Your task to perform on an android device: toggle location history Image 0: 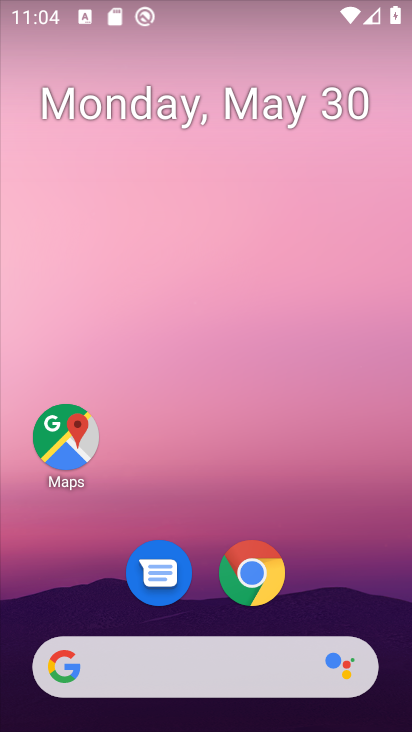
Step 0: drag from (227, 609) to (313, 63)
Your task to perform on an android device: toggle location history Image 1: 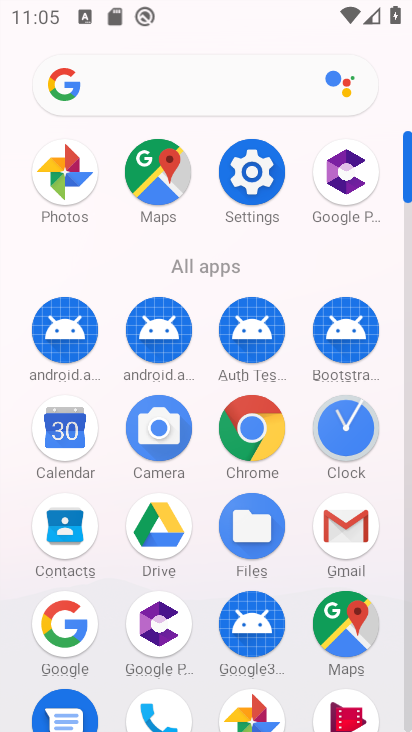
Step 1: click (271, 155)
Your task to perform on an android device: toggle location history Image 2: 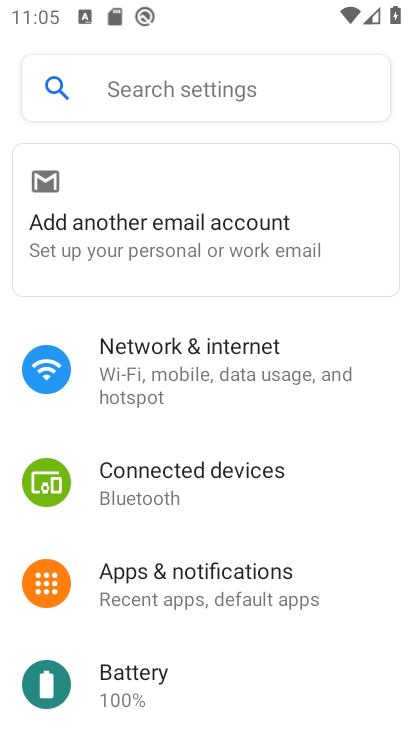
Step 2: drag from (231, 563) to (253, 133)
Your task to perform on an android device: toggle location history Image 3: 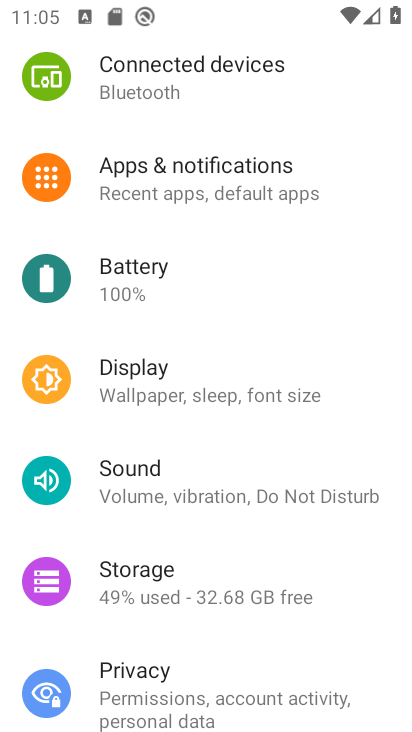
Step 3: drag from (146, 618) to (120, 208)
Your task to perform on an android device: toggle location history Image 4: 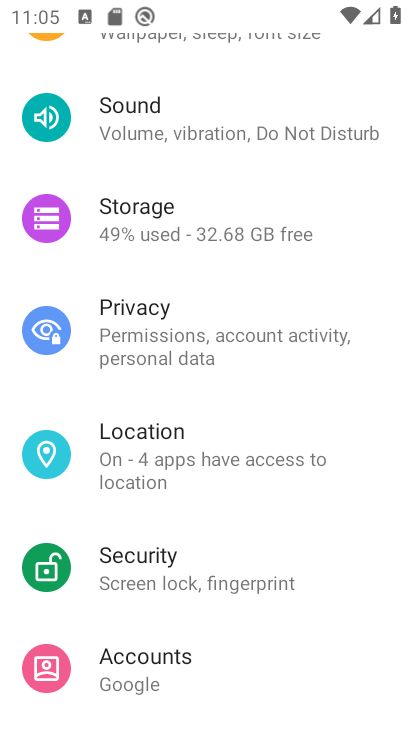
Step 4: click (222, 461)
Your task to perform on an android device: toggle location history Image 5: 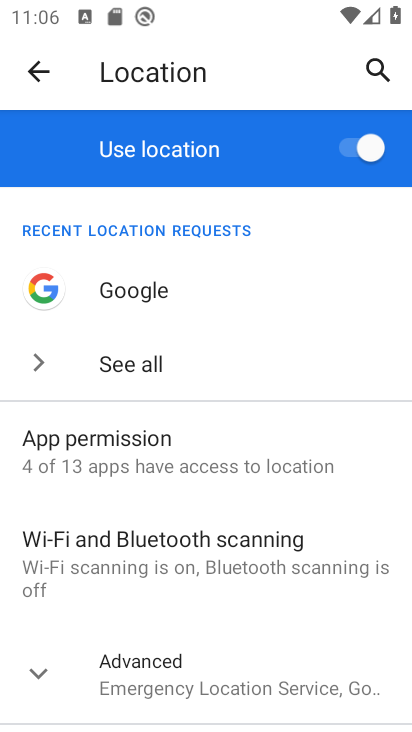
Step 5: click (184, 684)
Your task to perform on an android device: toggle location history Image 6: 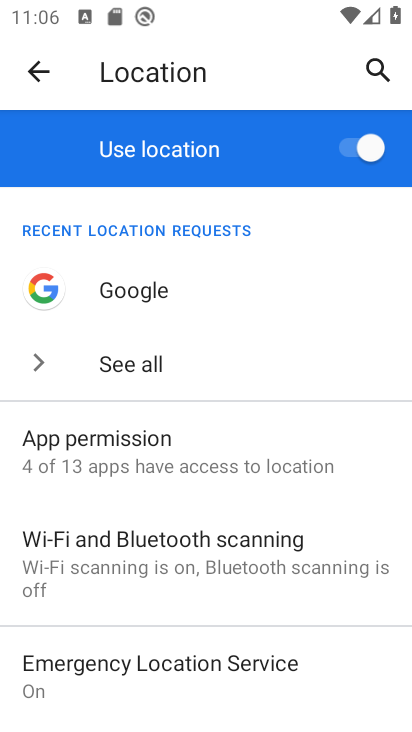
Step 6: drag from (267, 604) to (339, 147)
Your task to perform on an android device: toggle location history Image 7: 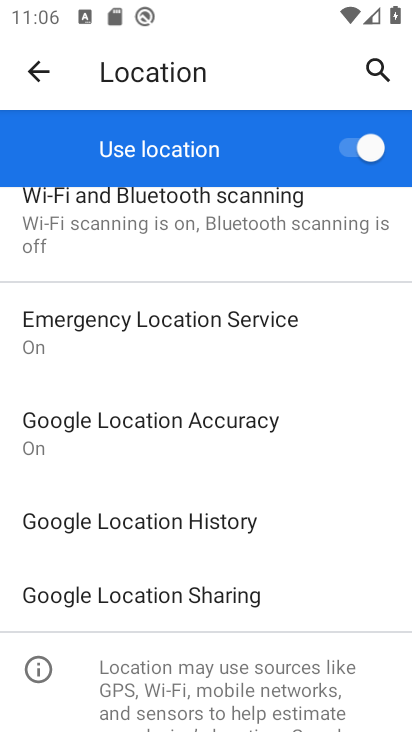
Step 7: click (230, 523)
Your task to perform on an android device: toggle location history Image 8: 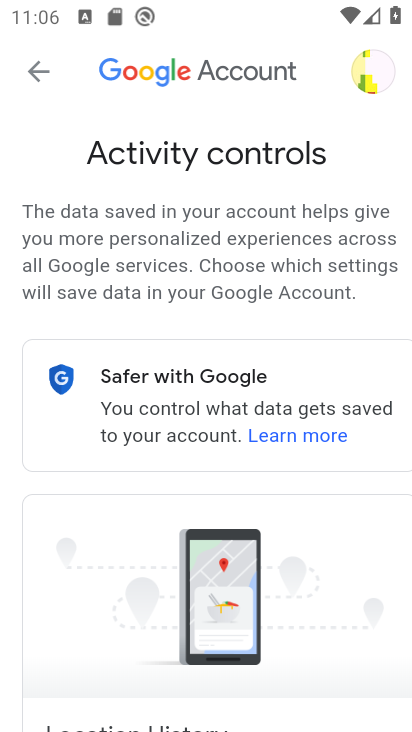
Step 8: drag from (249, 616) to (329, 112)
Your task to perform on an android device: toggle location history Image 9: 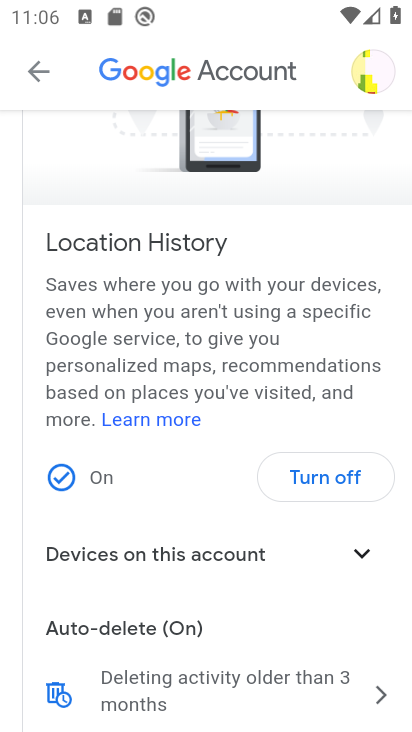
Step 9: click (333, 478)
Your task to perform on an android device: toggle location history Image 10: 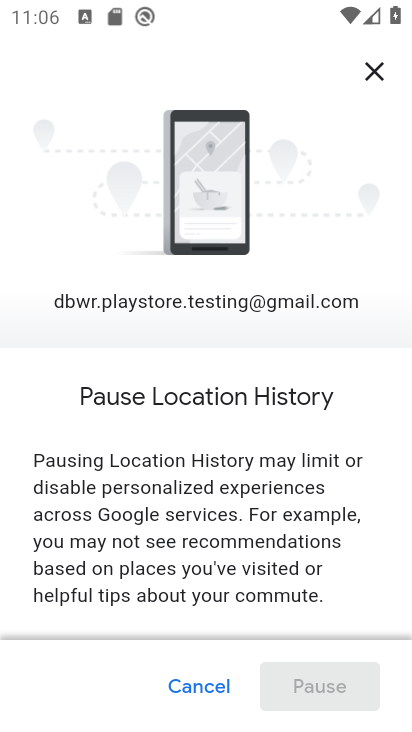
Step 10: drag from (225, 576) to (302, 25)
Your task to perform on an android device: toggle location history Image 11: 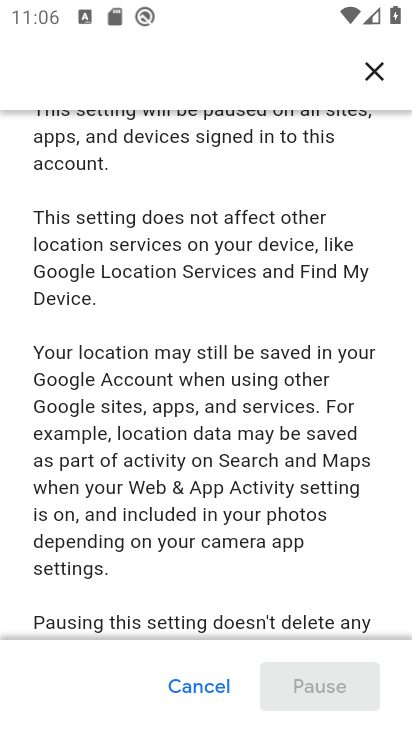
Step 11: drag from (280, 520) to (354, 80)
Your task to perform on an android device: toggle location history Image 12: 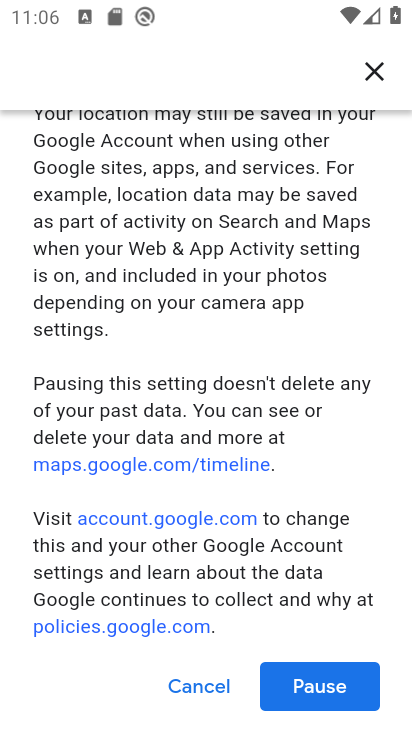
Step 12: click (304, 691)
Your task to perform on an android device: toggle location history Image 13: 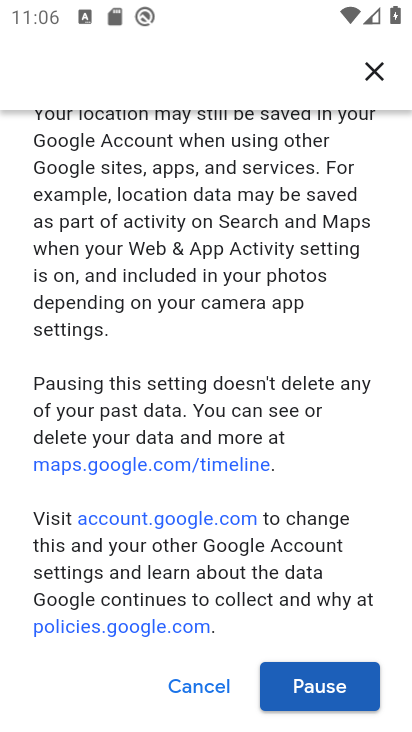
Step 13: click (330, 676)
Your task to perform on an android device: toggle location history Image 14: 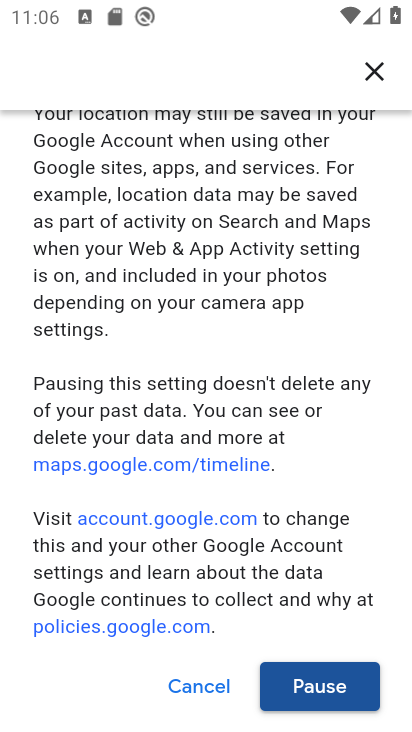
Step 14: click (338, 694)
Your task to perform on an android device: toggle location history Image 15: 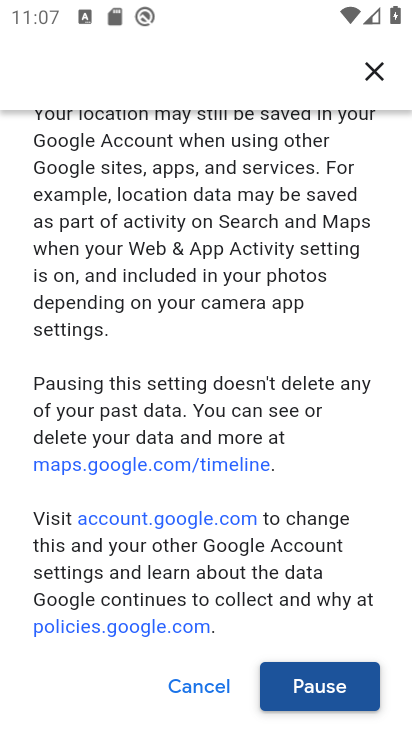
Step 15: click (337, 690)
Your task to perform on an android device: toggle location history Image 16: 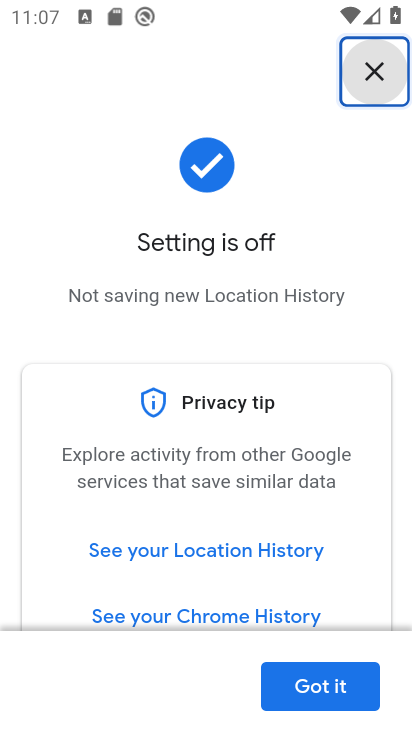
Step 16: click (335, 686)
Your task to perform on an android device: toggle location history Image 17: 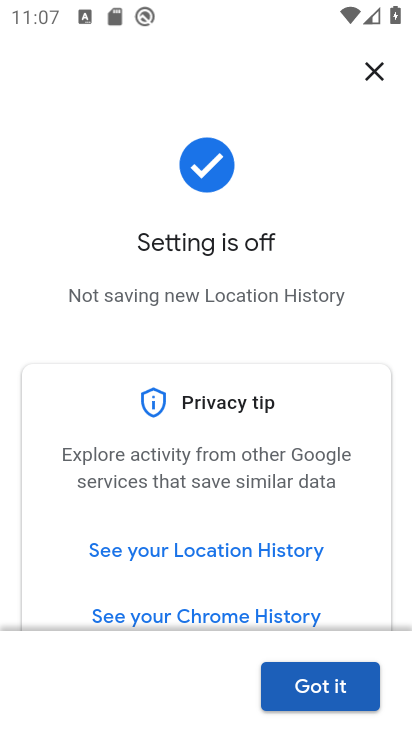
Step 17: task complete